Your task to perform on an android device: turn notification dots on Image 0: 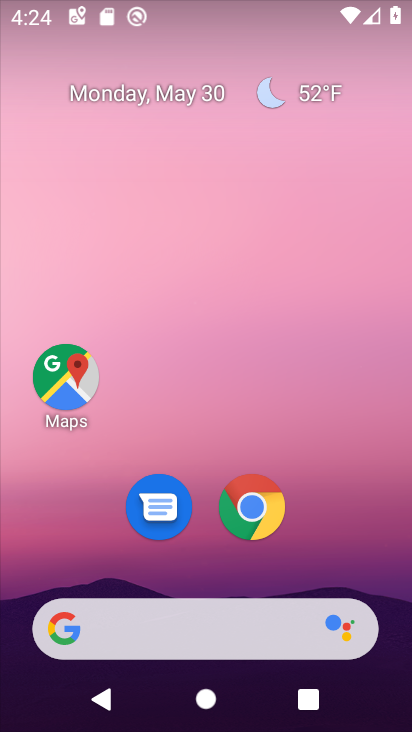
Step 0: drag from (326, 559) to (352, 60)
Your task to perform on an android device: turn notification dots on Image 1: 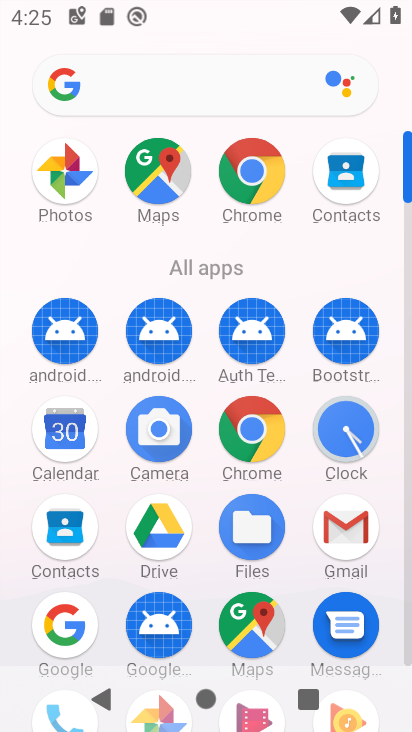
Step 1: drag from (212, 346) to (266, 50)
Your task to perform on an android device: turn notification dots on Image 2: 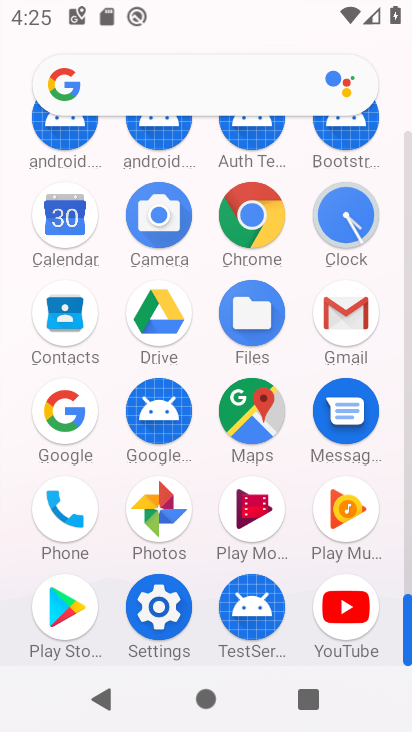
Step 2: click (165, 599)
Your task to perform on an android device: turn notification dots on Image 3: 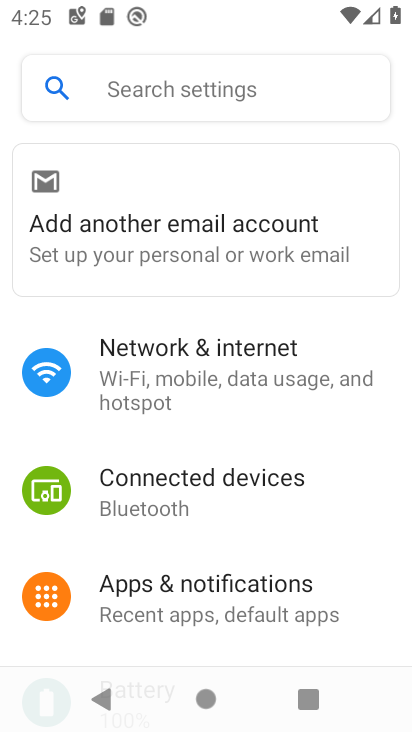
Step 3: click (225, 579)
Your task to perform on an android device: turn notification dots on Image 4: 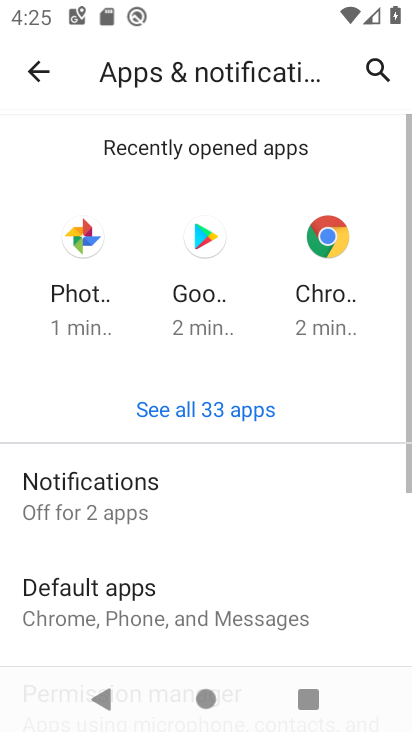
Step 4: drag from (333, 599) to (336, 499)
Your task to perform on an android device: turn notification dots on Image 5: 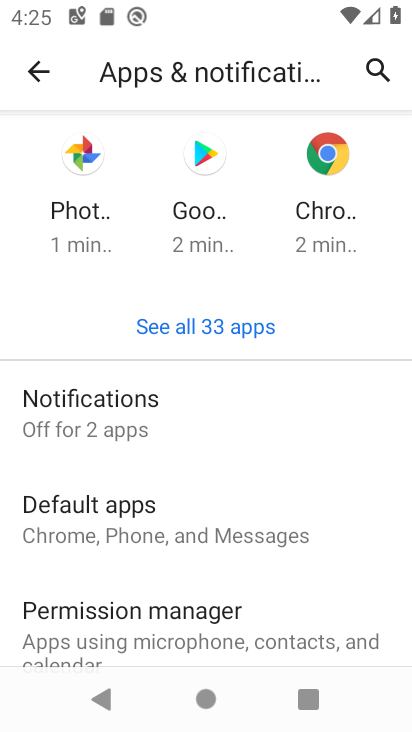
Step 5: click (111, 416)
Your task to perform on an android device: turn notification dots on Image 6: 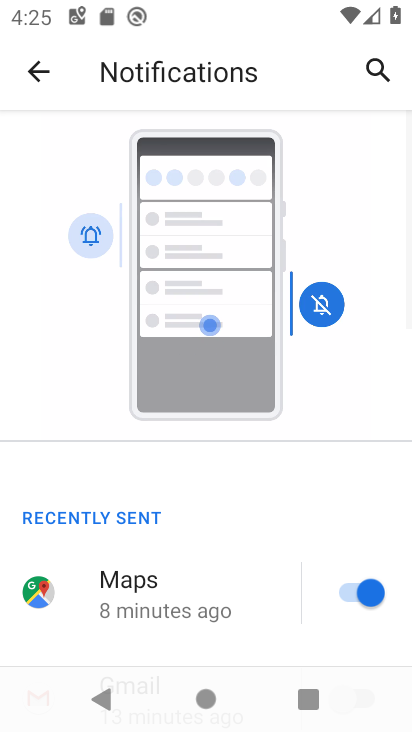
Step 6: drag from (258, 613) to (305, 172)
Your task to perform on an android device: turn notification dots on Image 7: 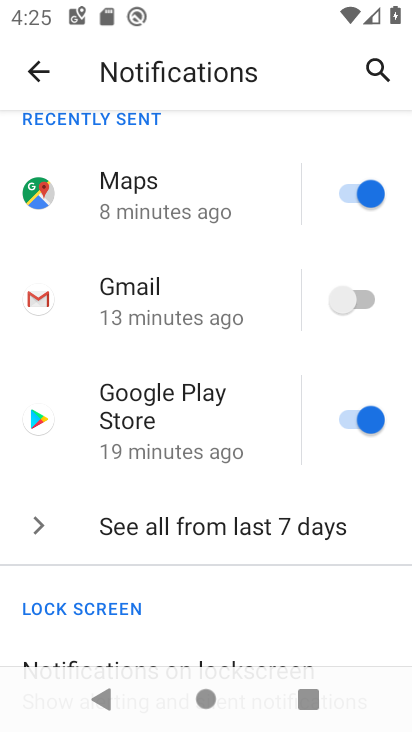
Step 7: drag from (245, 605) to (286, 175)
Your task to perform on an android device: turn notification dots on Image 8: 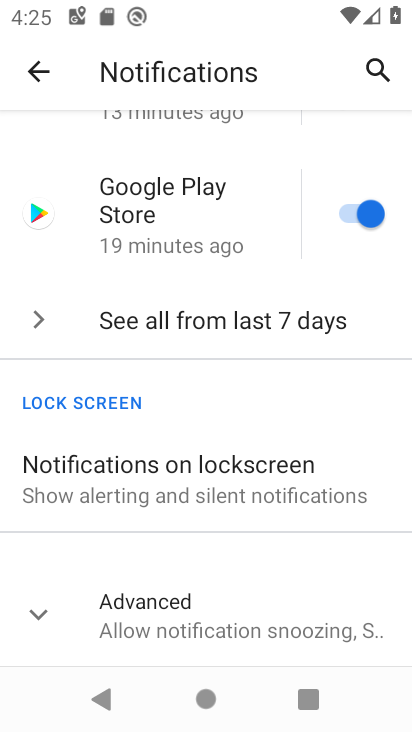
Step 8: click (196, 620)
Your task to perform on an android device: turn notification dots on Image 9: 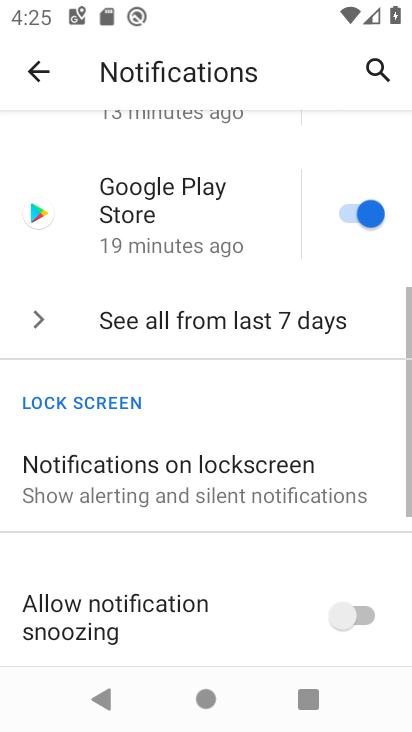
Step 9: task complete